Your task to perform on an android device: Open Google Chrome and open the bookmarks view Image 0: 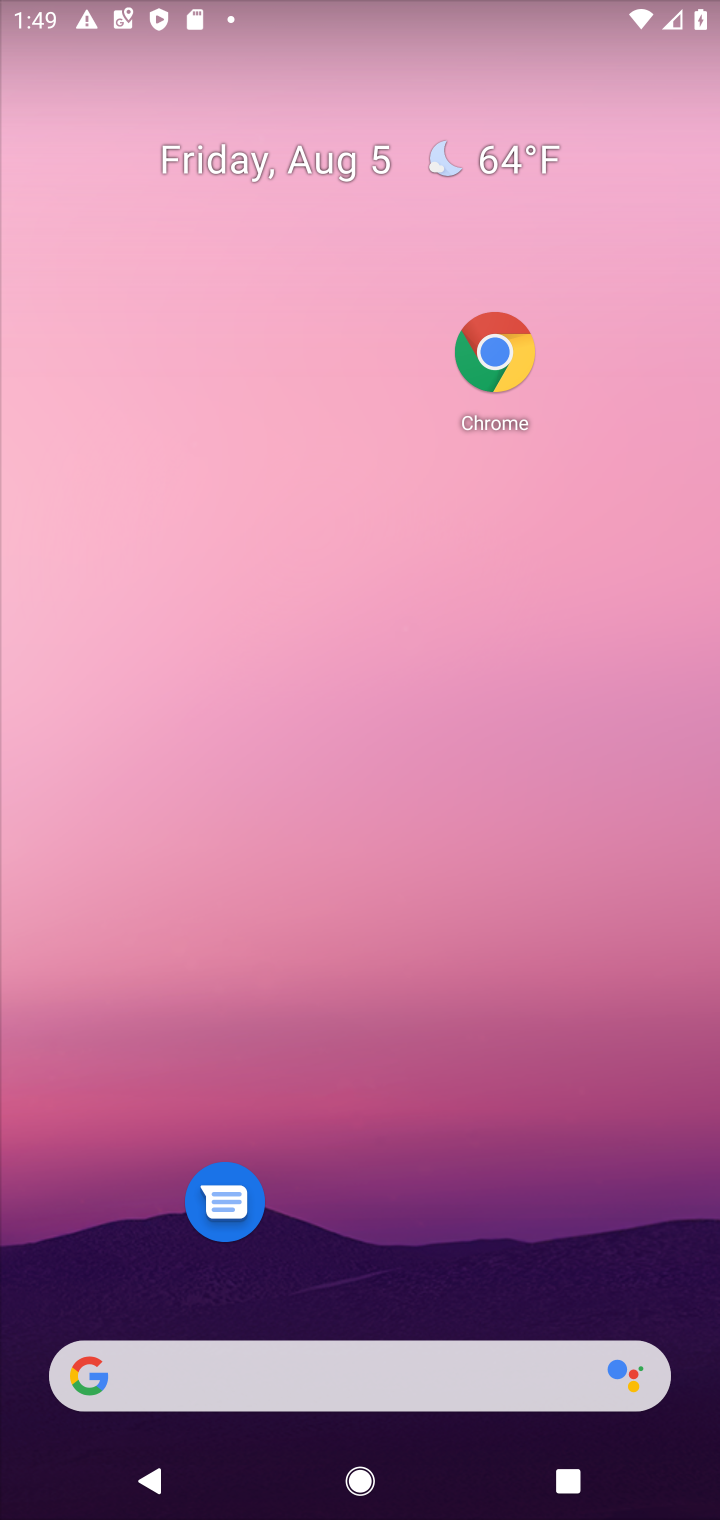
Step 0: drag from (485, 1021) to (538, 297)
Your task to perform on an android device: Open Google Chrome and open the bookmarks view Image 1: 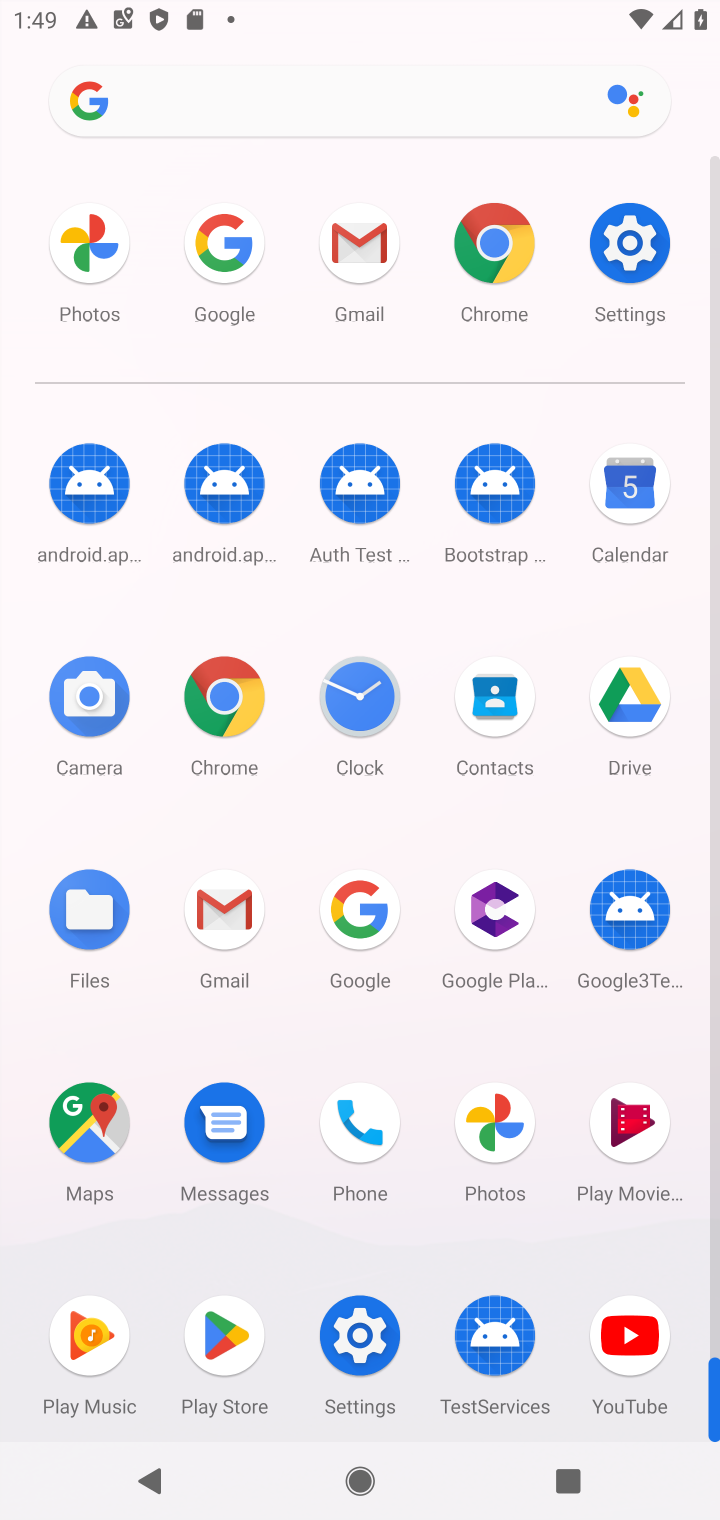
Step 1: click (223, 690)
Your task to perform on an android device: Open Google Chrome and open the bookmarks view Image 2: 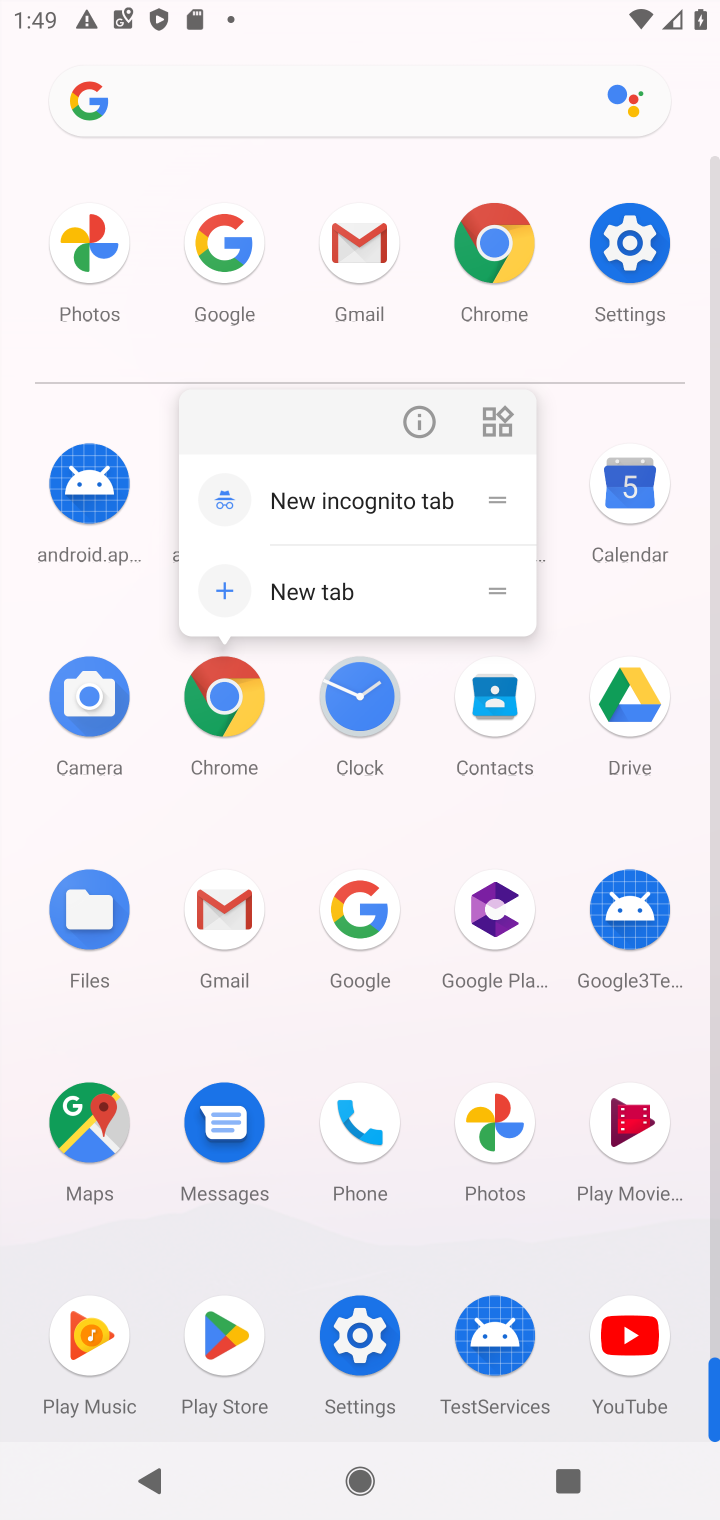
Step 2: click (234, 695)
Your task to perform on an android device: Open Google Chrome and open the bookmarks view Image 3: 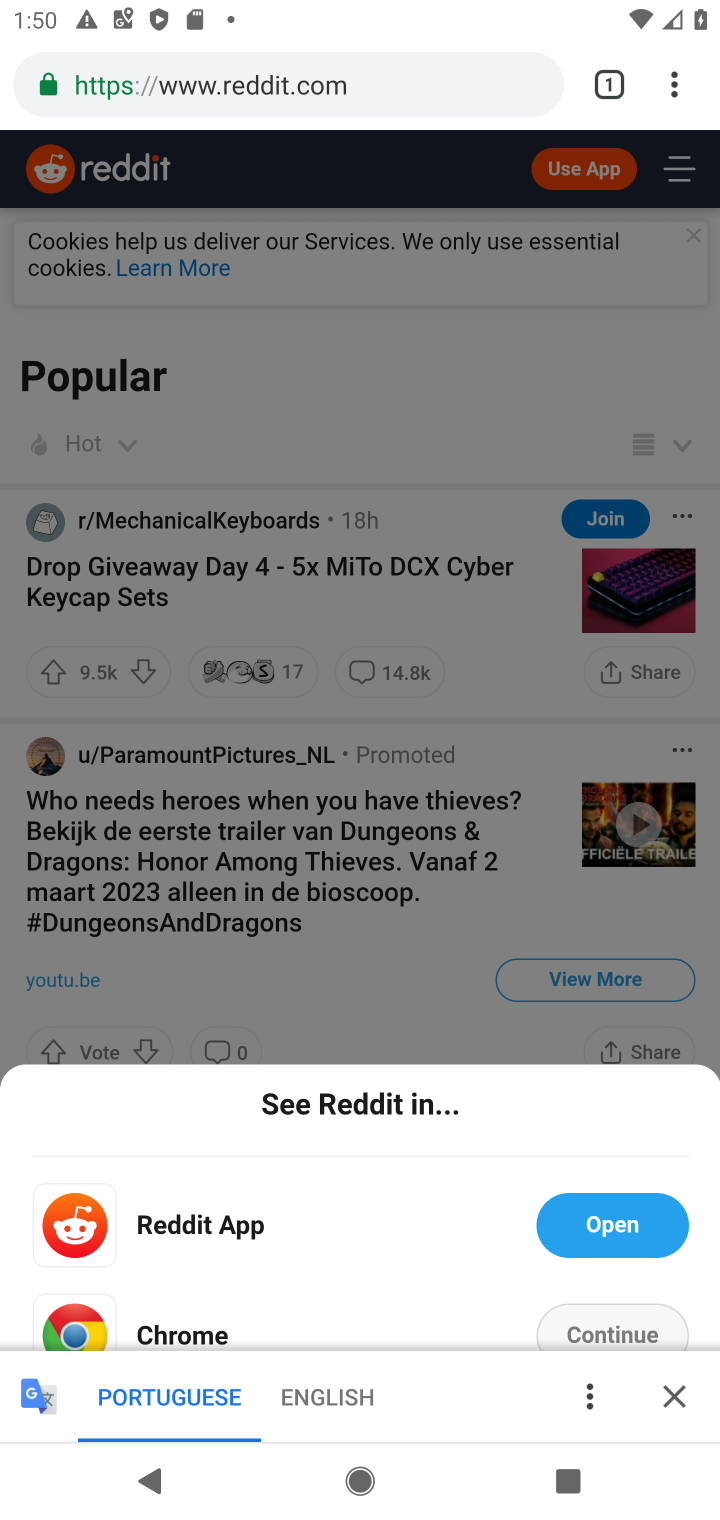
Step 3: task complete